Your task to perform on an android device: Search for "apple airpods pro" on amazon.com, select the first entry, add it to the cart, then select checkout. Image 0: 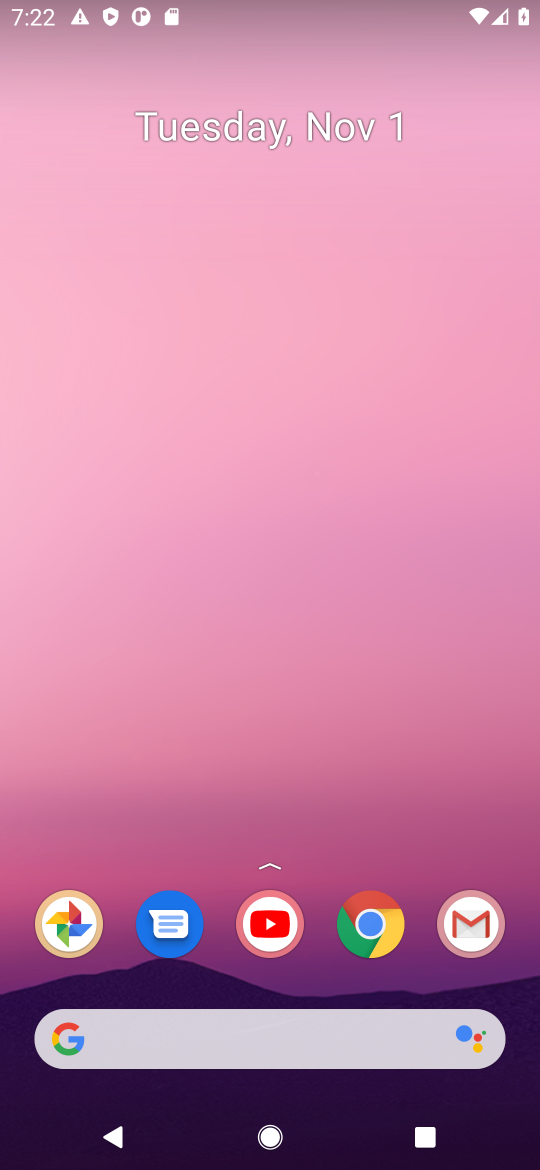
Step 0: press home button
Your task to perform on an android device: Search for "apple airpods pro" on amazon.com, select the first entry, add it to the cart, then select checkout. Image 1: 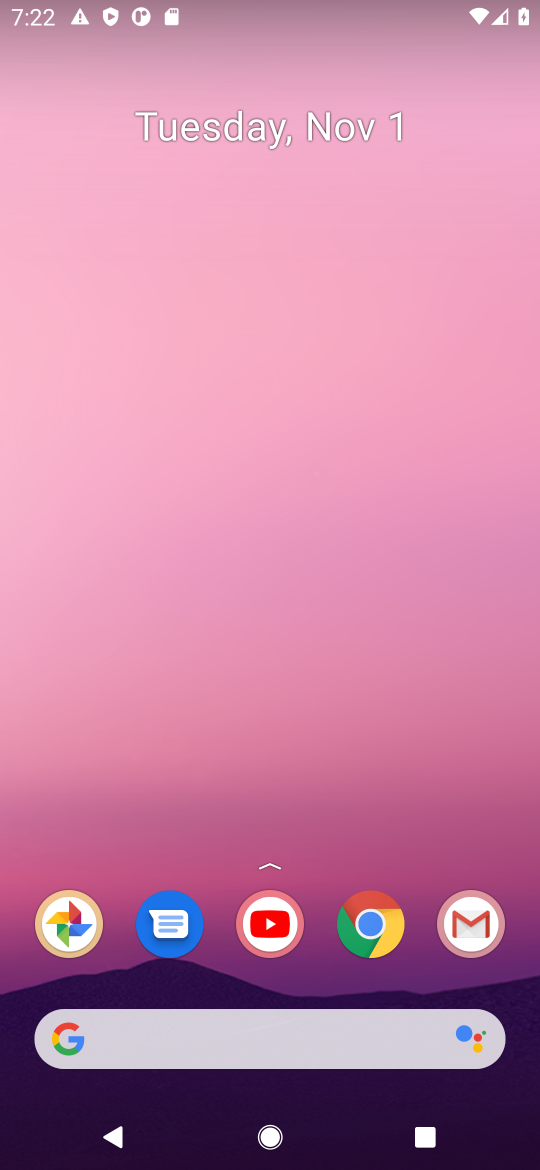
Step 1: click (93, 1038)
Your task to perform on an android device: Search for "apple airpods pro" on amazon.com, select the first entry, add it to the cart, then select checkout. Image 2: 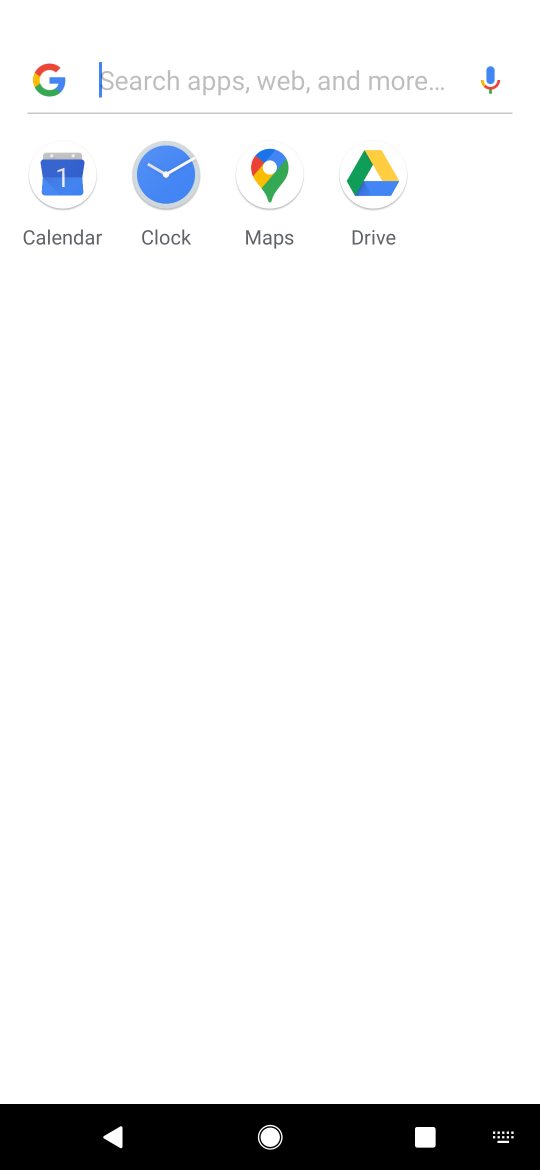
Step 2: type "amazon.com"
Your task to perform on an android device: Search for "apple airpods pro" on amazon.com, select the first entry, add it to the cart, then select checkout. Image 3: 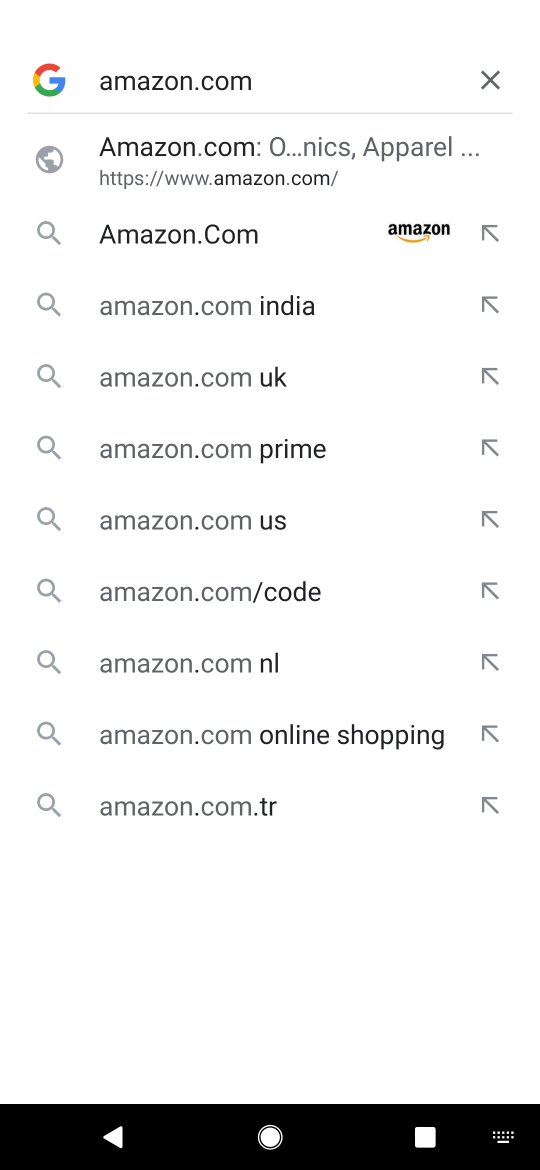
Step 3: press enter
Your task to perform on an android device: Search for "apple airpods pro" on amazon.com, select the first entry, add it to the cart, then select checkout. Image 4: 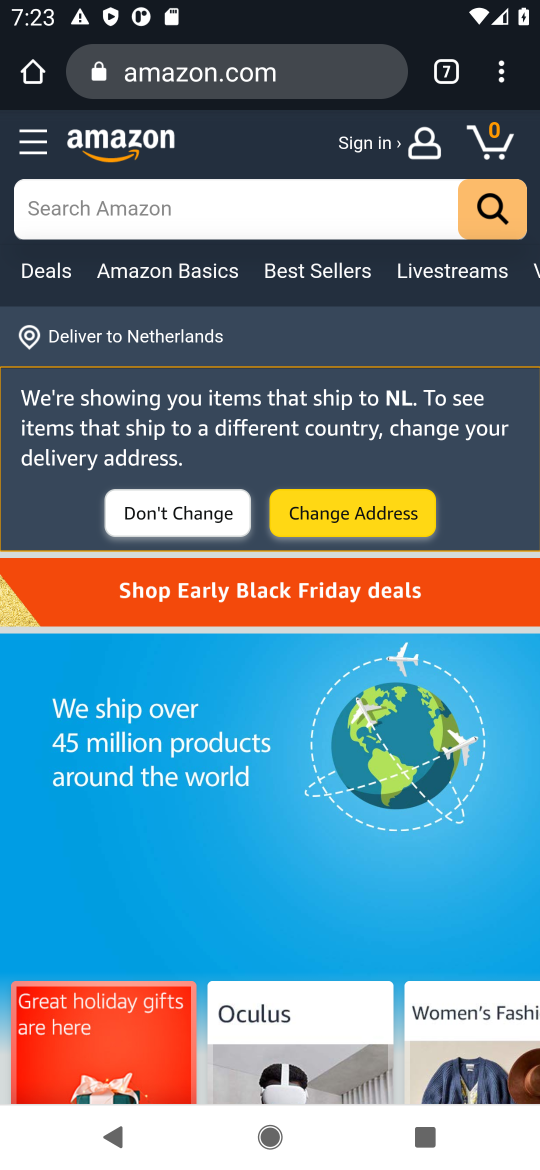
Step 4: click (104, 199)
Your task to perform on an android device: Search for "apple airpods pro" on amazon.com, select the first entry, add it to the cart, then select checkout. Image 5: 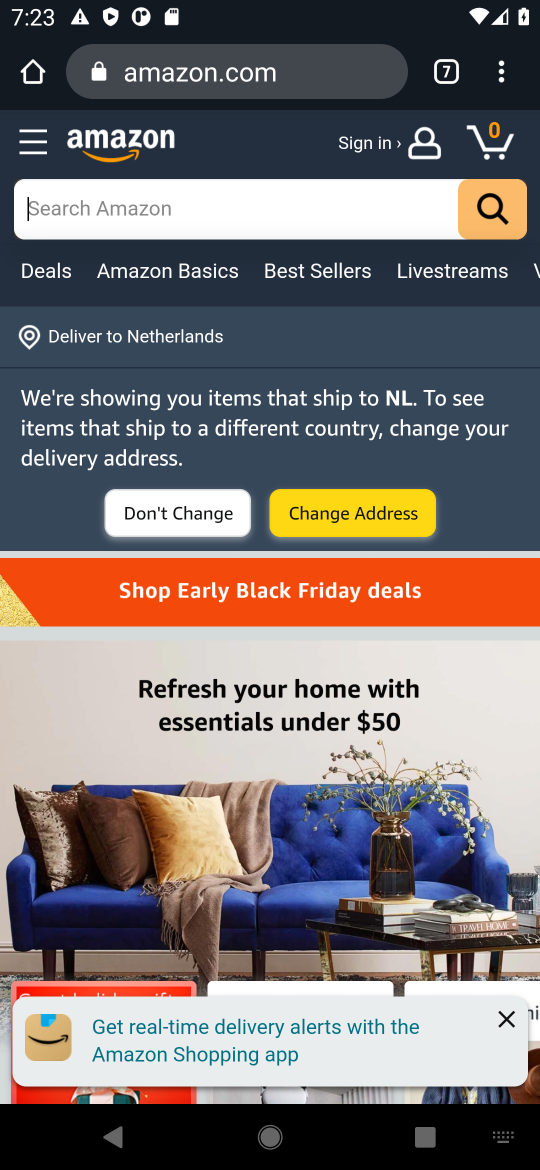
Step 5: type "apple airpods pro"
Your task to perform on an android device: Search for "apple airpods pro" on amazon.com, select the first entry, add it to the cart, then select checkout. Image 6: 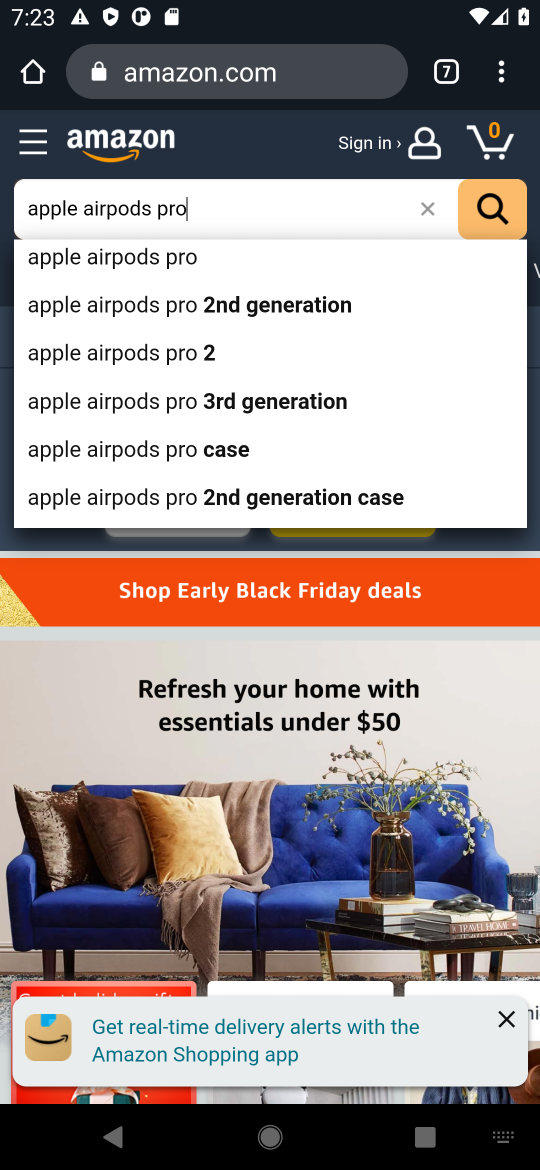
Step 6: click (484, 198)
Your task to perform on an android device: Search for "apple airpods pro" on amazon.com, select the first entry, add it to the cart, then select checkout. Image 7: 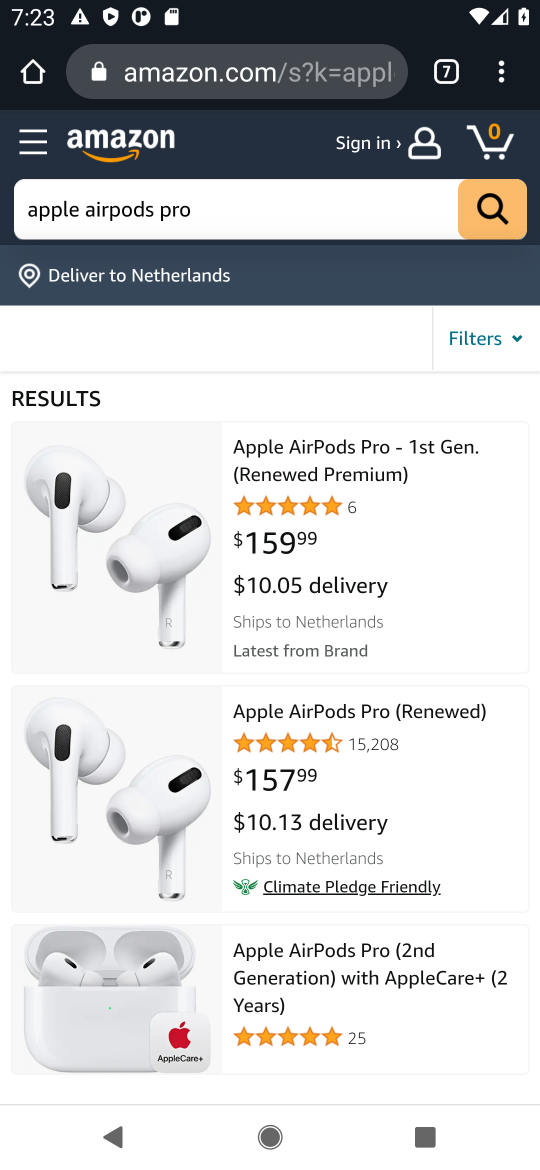
Step 7: click (330, 488)
Your task to perform on an android device: Search for "apple airpods pro" on amazon.com, select the first entry, add it to the cart, then select checkout. Image 8: 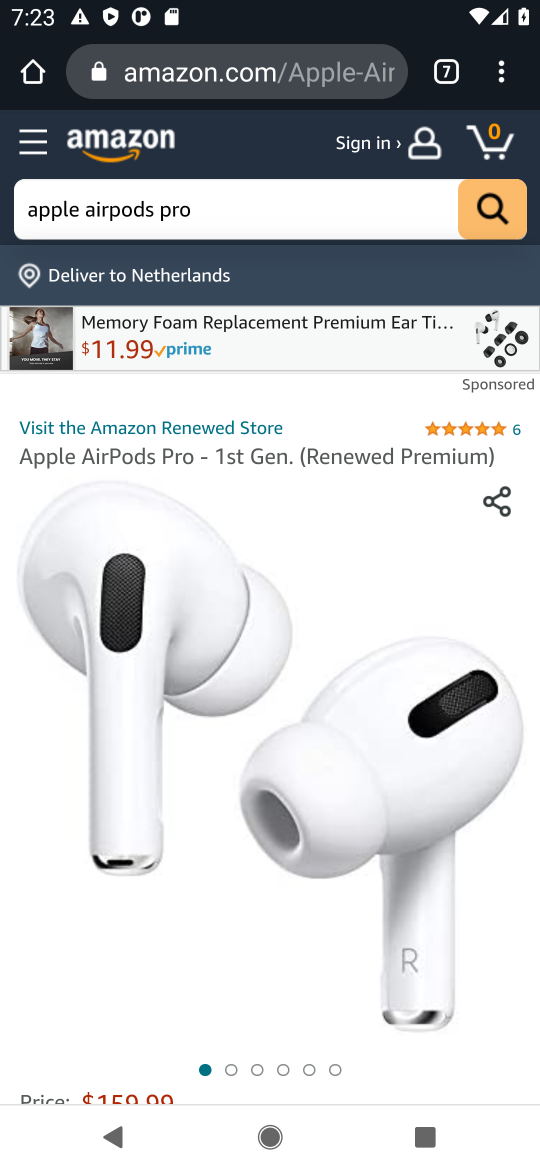
Step 8: drag from (300, 916) to (292, 424)
Your task to perform on an android device: Search for "apple airpods pro" on amazon.com, select the first entry, add it to the cart, then select checkout. Image 9: 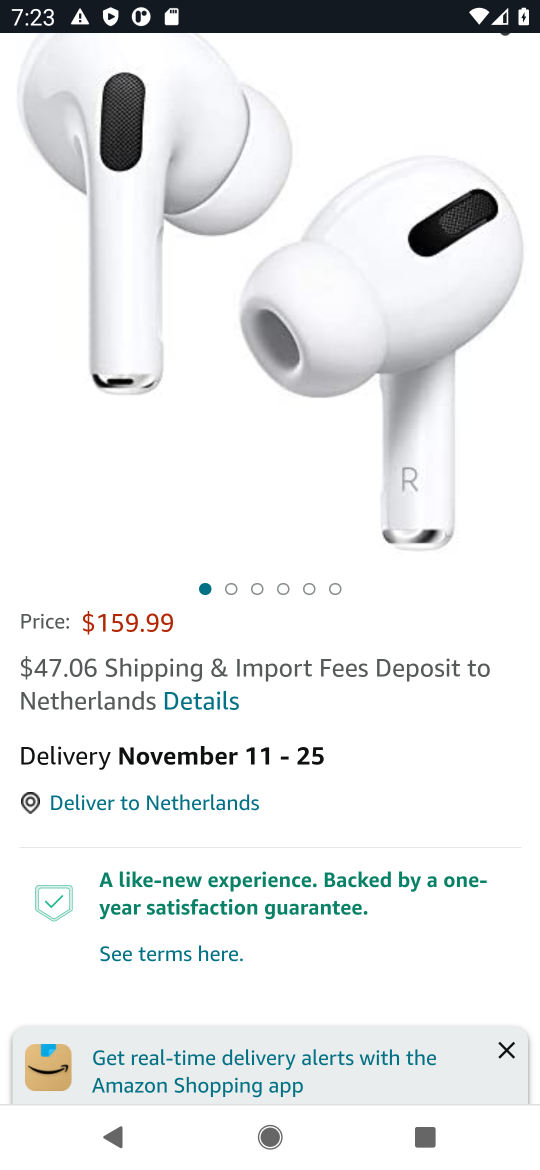
Step 9: drag from (288, 975) to (346, 429)
Your task to perform on an android device: Search for "apple airpods pro" on amazon.com, select the first entry, add it to the cart, then select checkout. Image 10: 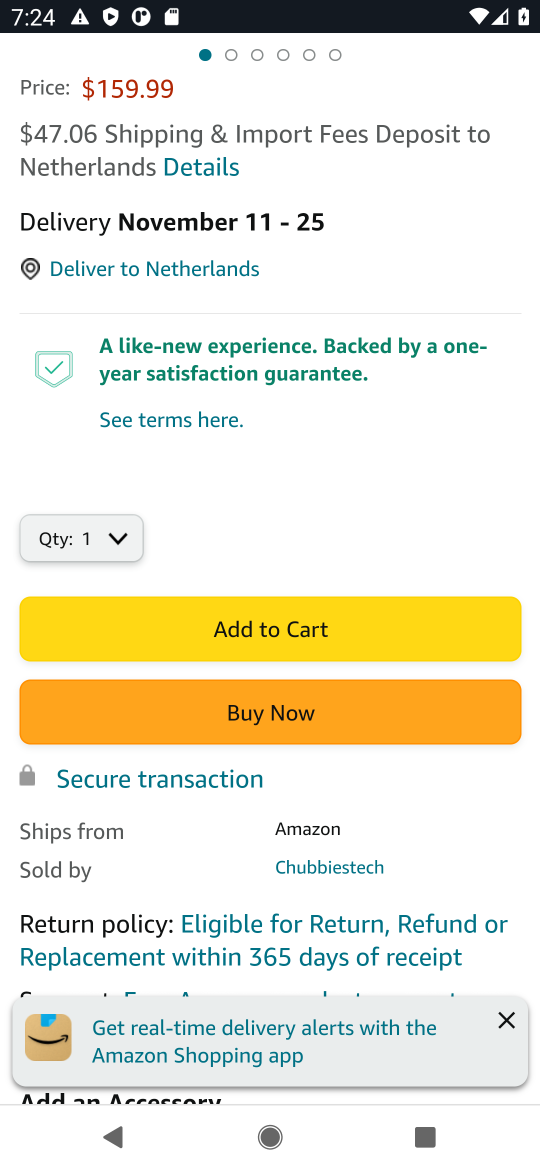
Step 10: click (243, 630)
Your task to perform on an android device: Search for "apple airpods pro" on amazon.com, select the first entry, add it to the cart, then select checkout. Image 11: 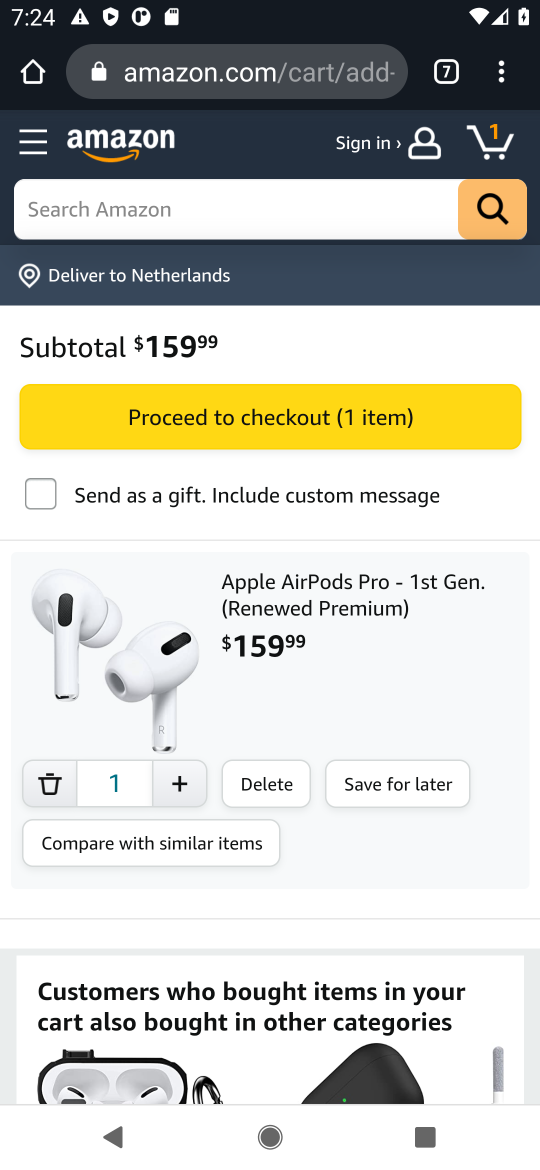
Step 11: click (333, 409)
Your task to perform on an android device: Search for "apple airpods pro" on amazon.com, select the first entry, add it to the cart, then select checkout. Image 12: 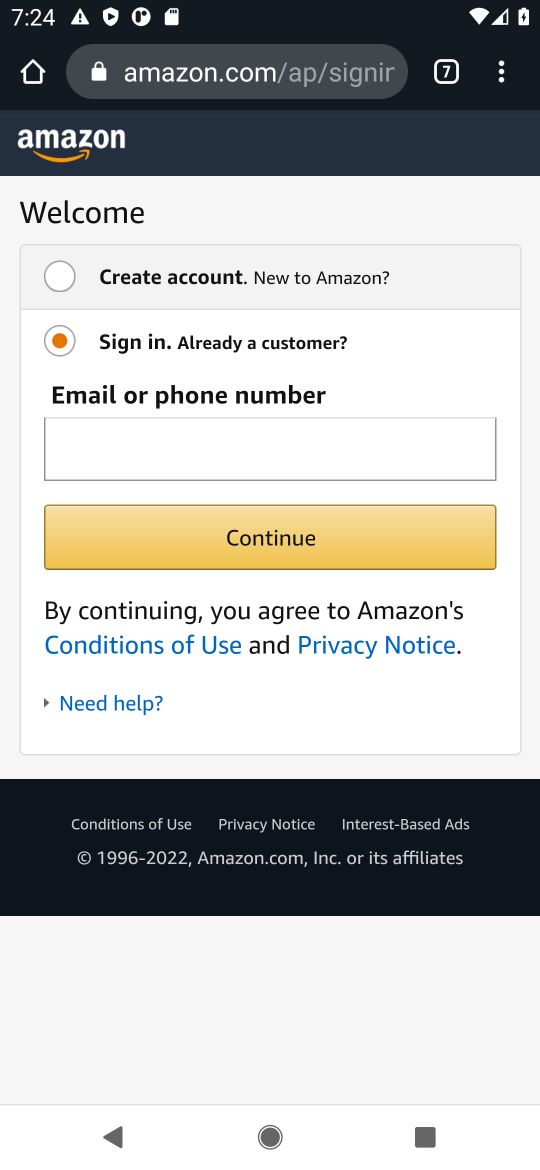
Step 12: task complete